Your task to perform on an android device: change the clock display to digital Image 0: 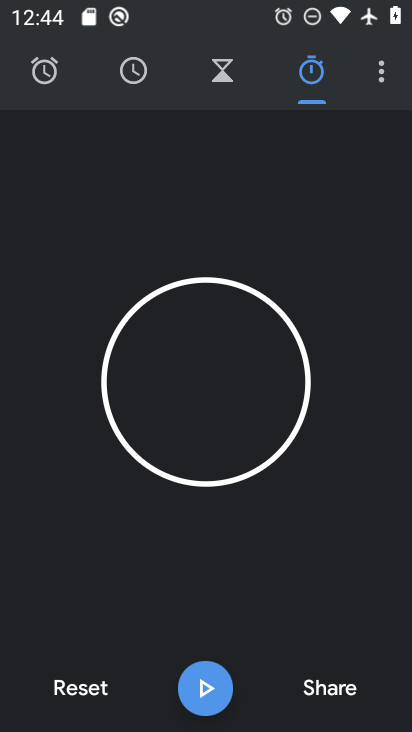
Step 0: click (380, 82)
Your task to perform on an android device: change the clock display to digital Image 1: 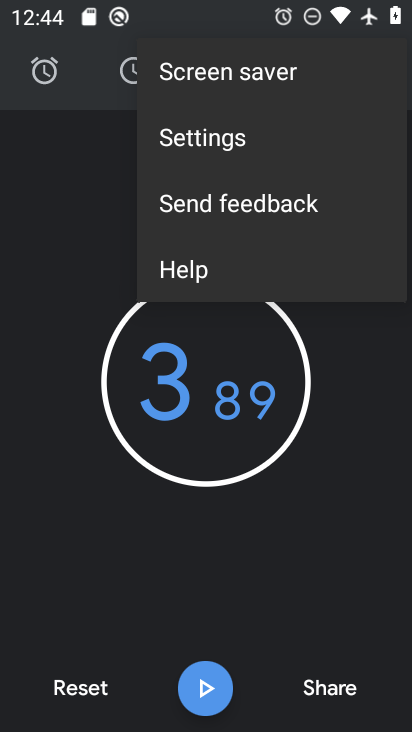
Step 1: click (229, 133)
Your task to perform on an android device: change the clock display to digital Image 2: 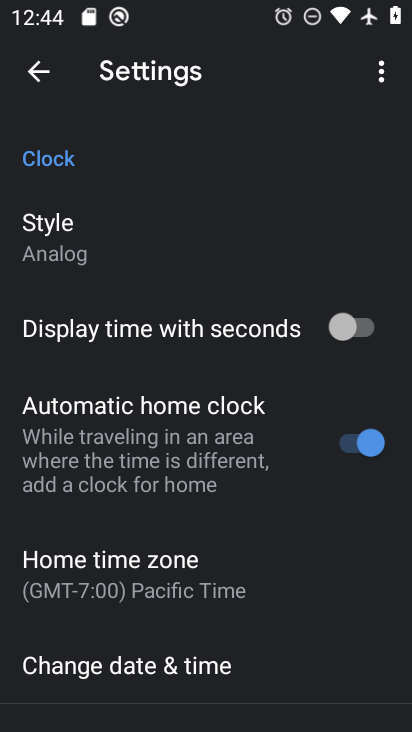
Step 2: click (60, 250)
Your task to perform on an android device: change the clock display to digital Image 3: 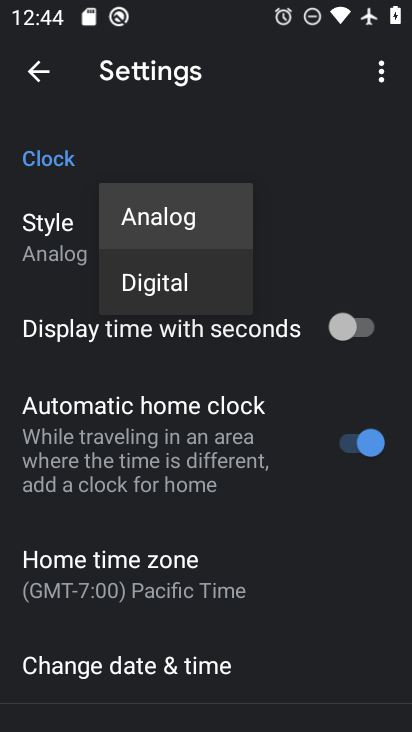
Step 3: click (160, 291)
Your task to perform on an android device: change the clock display to digital Image 4: 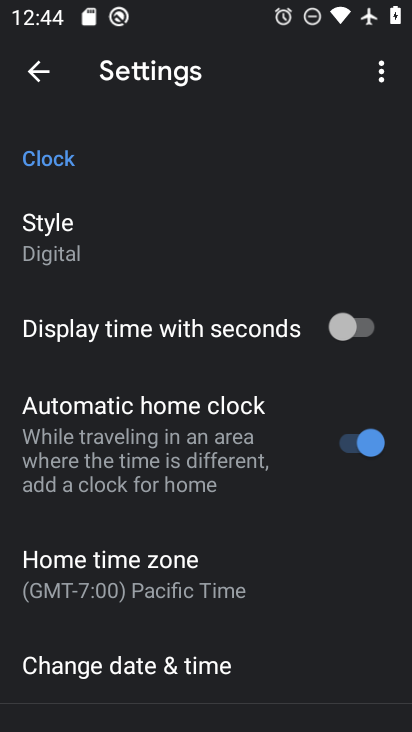
Step 4: task complete